Your task to perform on an android device: Go to CNN.com Image 0: 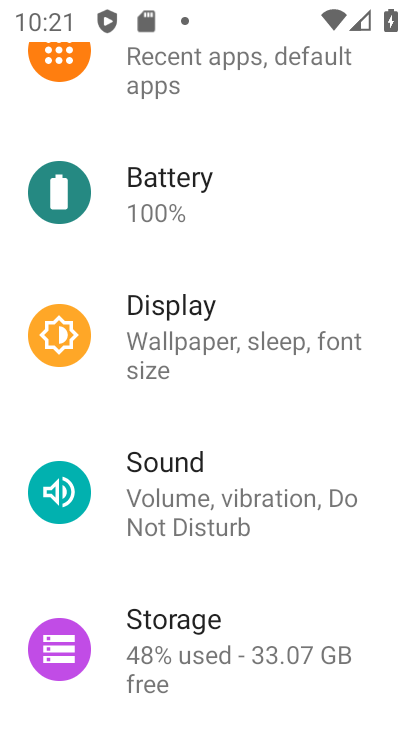
Step 0: press home button
Your task to perform on an android device: Go to CNN.com Image 1: 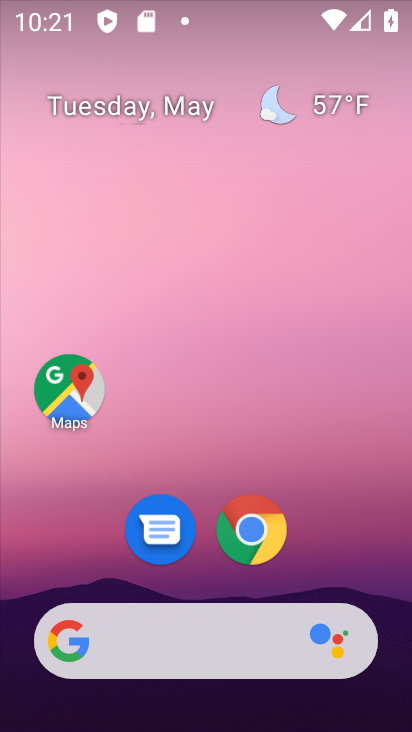
Step 1: click (248, 532)
Your task to perform on an android device: Go to CNN.com Image 2: 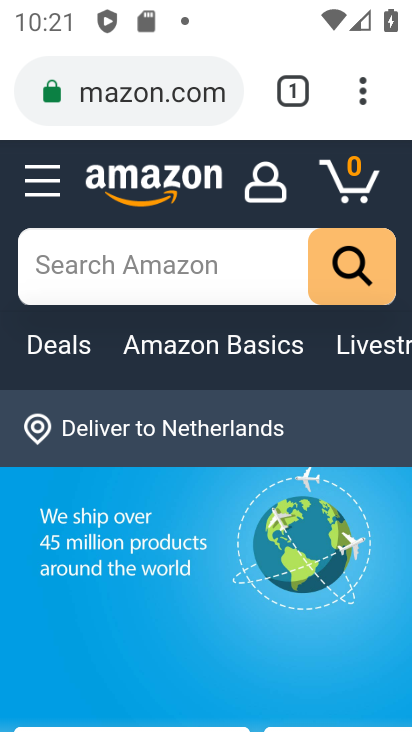
Step 2: click (131, 119)
Your task to perform on an android device: Go to CNN.com Image 3: 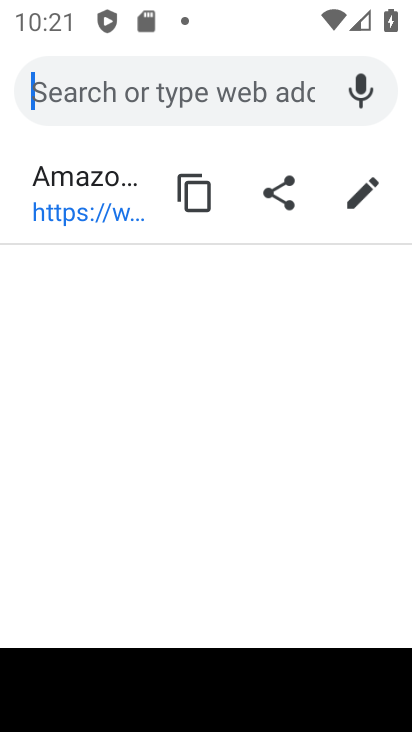
Step 3: click (197, 74)
Your task to perform on an android device: Go to CNN.com Image 4: 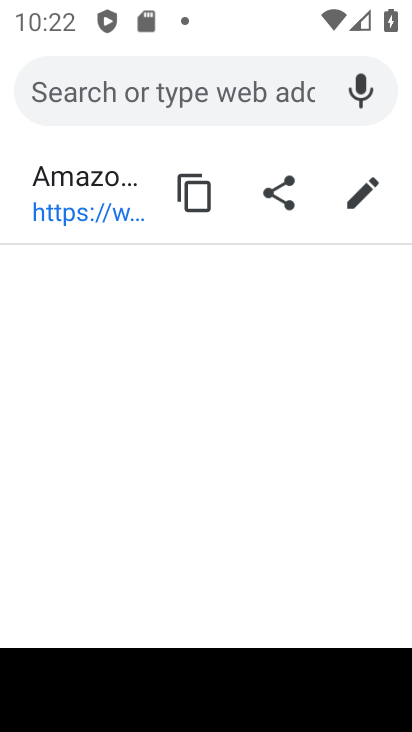
Step 4: type "cnn"
Your task to perform on an android device: Go to CNN.com Image 5: 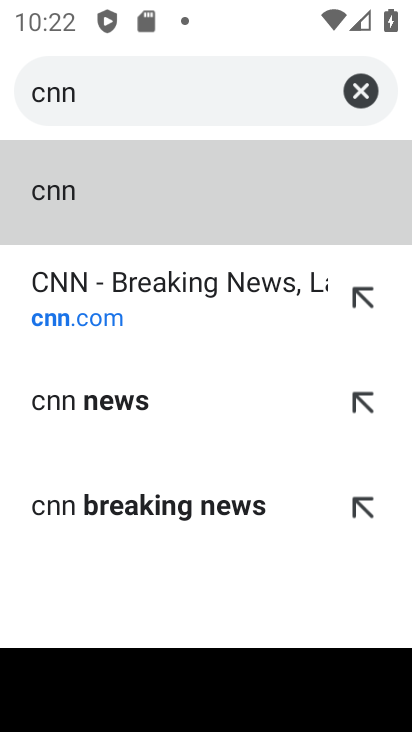
Step 5: click (106, 307)
Your task to perform on an android device: Go to CNN.com Image 6: 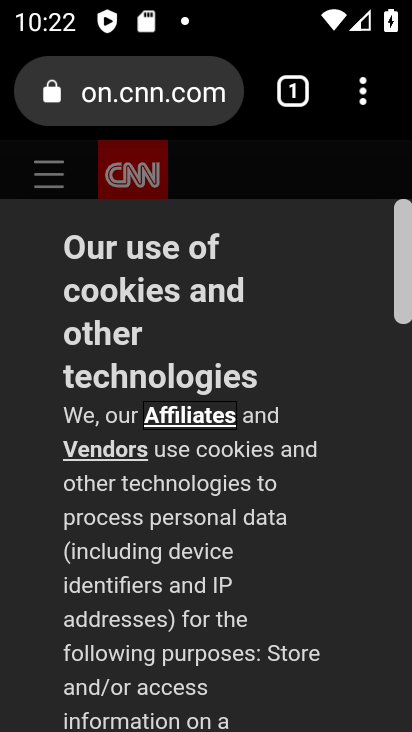
Step 6: task complete